Your task to perform on an android device: Open wifi settings Image 0: 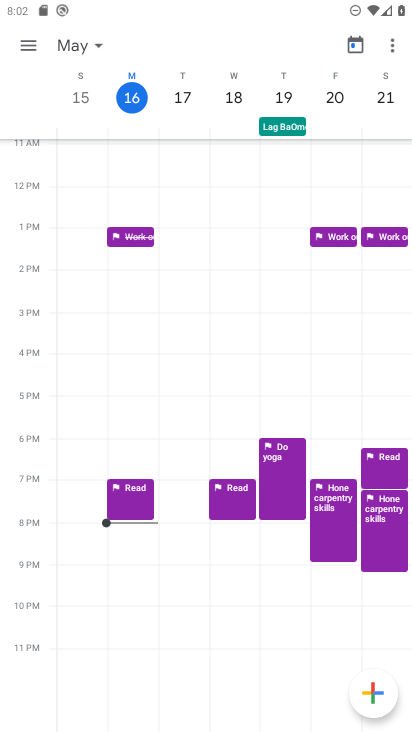
Step 0: press home button
Your task to perform on an android device: Open wifi settings Image 1: 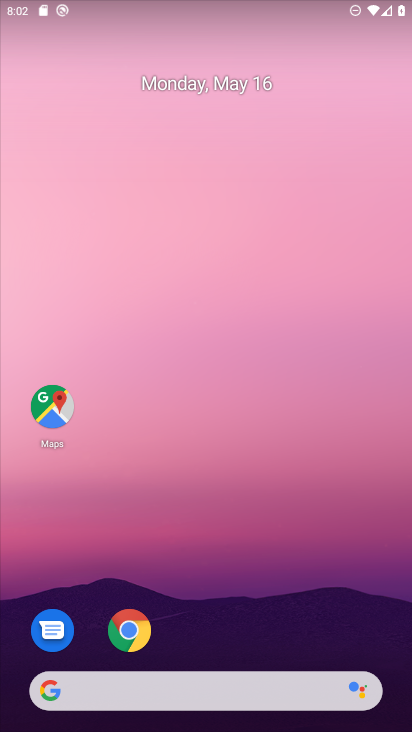
Step 1: drag from (298, 581) to (298, 157)
Your task to perform on an android device: Open wifi settings Image 2: 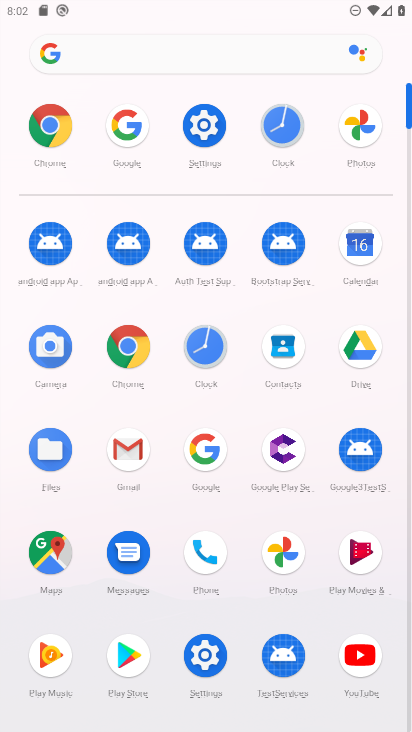
Step 2: click (198, 119)
Your task to perform on an android device: Open wifi settings Image 3: 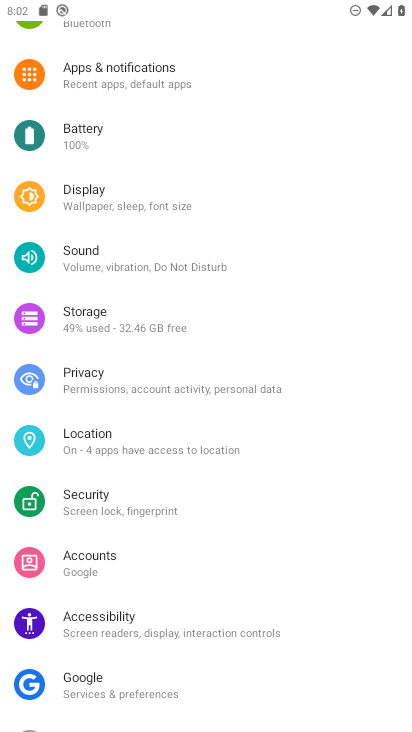
Step 3: drag from (257, 112) to (334, 582)
Your task to perform on an android device: Open wifi settings Image 4: 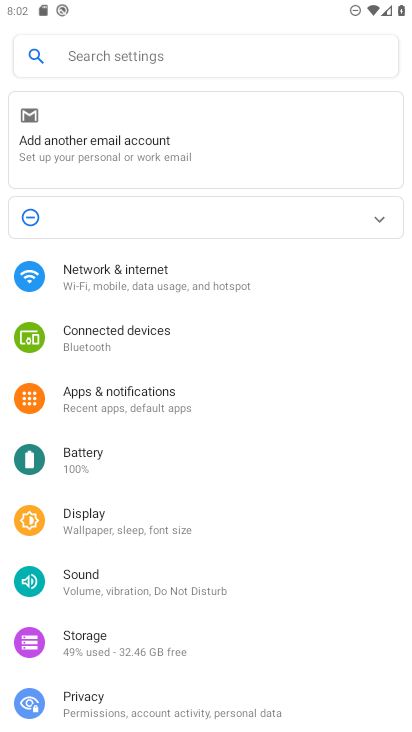
Step 4: click (245, 270)
Your task to perform on an android device: Open wifi settings Image 5: 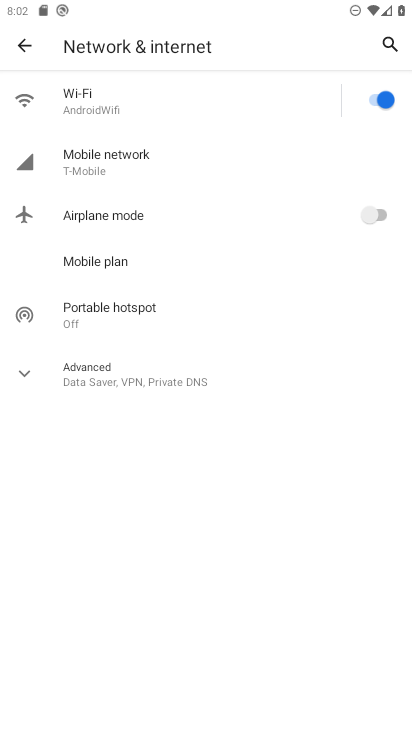
Step 5: click (20, 118)
Your task to perform on an android device: Open wifi settings Image 6: 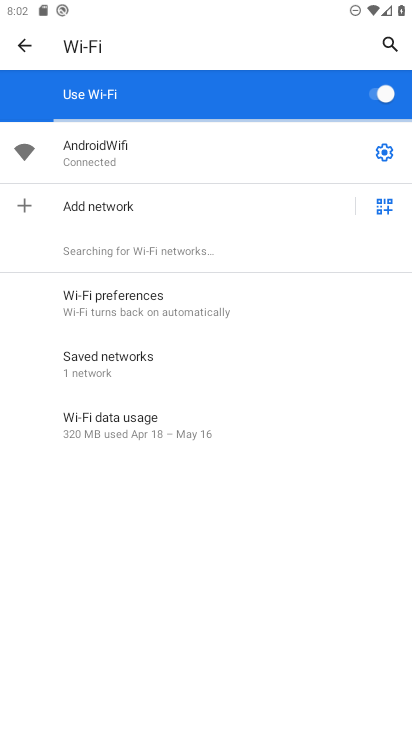
Step 6: task complete